Your task to perform on an android device: turn on showing notifications on the lock screen Image 0: 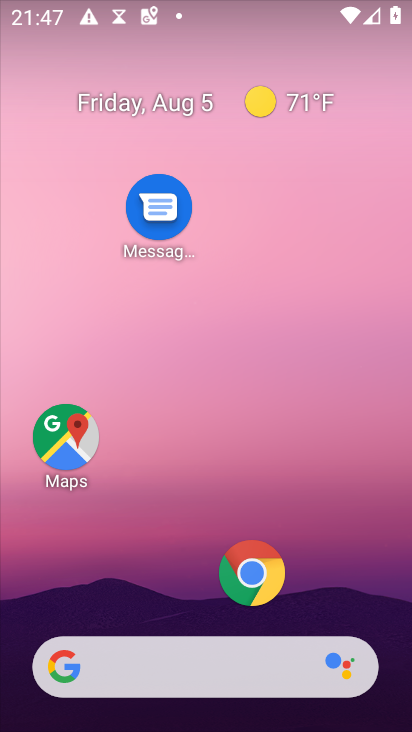
Step 0: press home button
Your task to perform on an android device: turn on showing notifications on the lock screen Image 1: 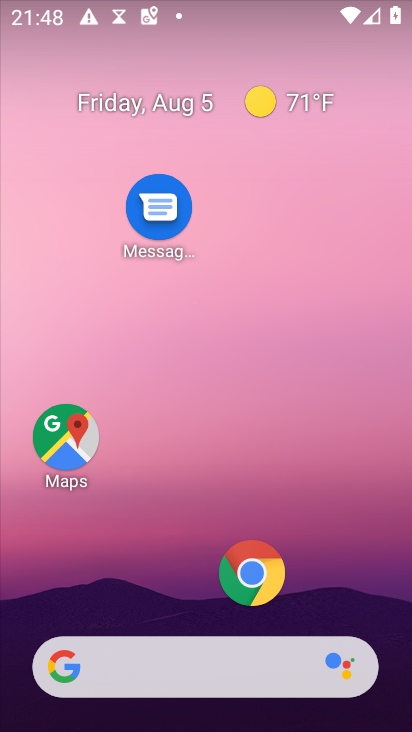
Step 1: drag from (185, 606) to (232, 36)
Your task to perform on an android device: turn on showing notifications on the lock screen Image 2: 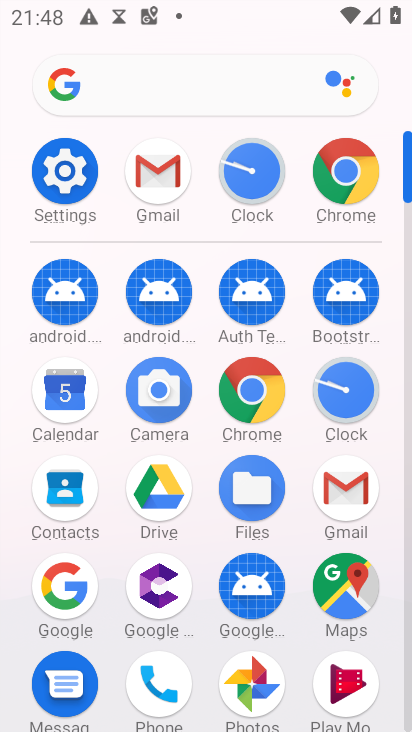
Step 2: click (58, 163)
Your task to perform on an android device: turn on showing notifications on the lock screen Image 3: 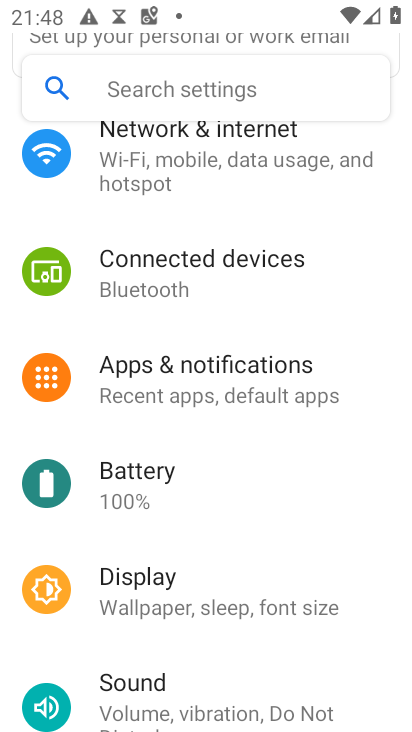
Step 3: click (326, 378)
Your task to perform on an android device: turn on showing notifications on the lock screen Image 4: 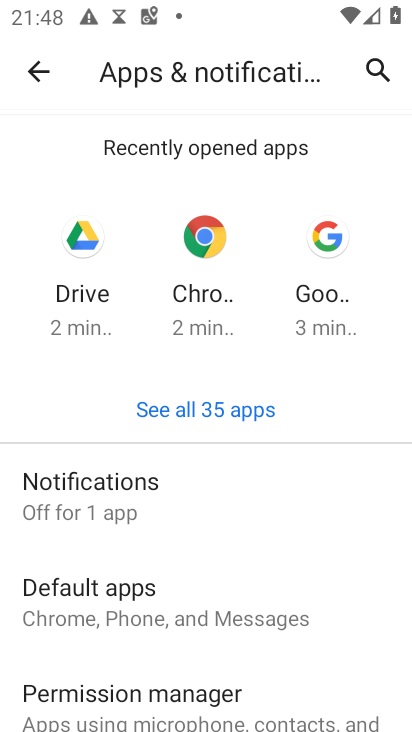
Step 4: click (186, 496)
Your task to perform on an android device: turn on showing notifications on the lock screen Image 5: 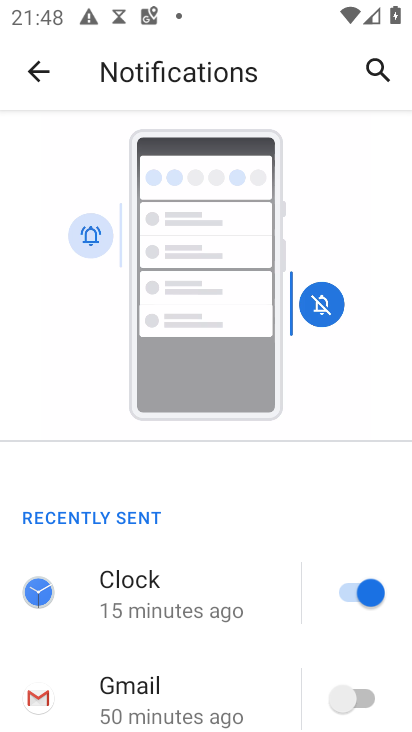
Step 5: drag from (232, 671) to (227, 233)
Your task to perform on an android device: turn on showing notifications on the lock screen Image 6: 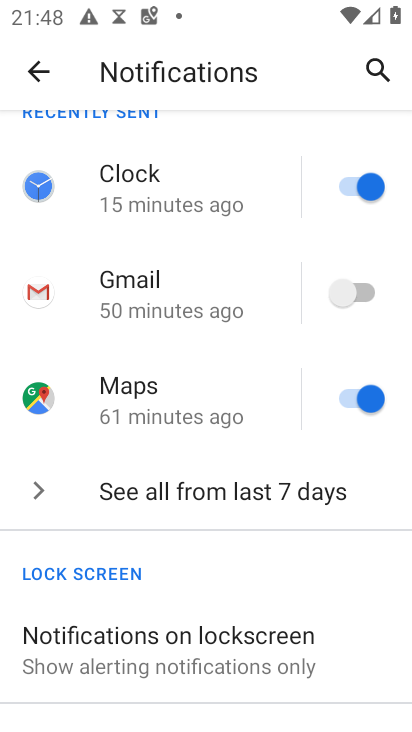
Step 6: drag from (237, 606) to (235, 281)
Your task to perform on an android device: turn on showing notifications on the lock screen Image 7: 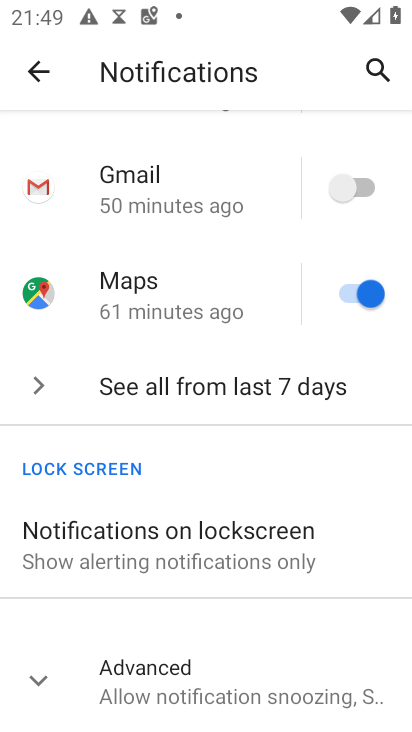
Step 7: click (131, 549)
Your task to perform on an android device: turn on showing notifications on the lock screen Image 8: 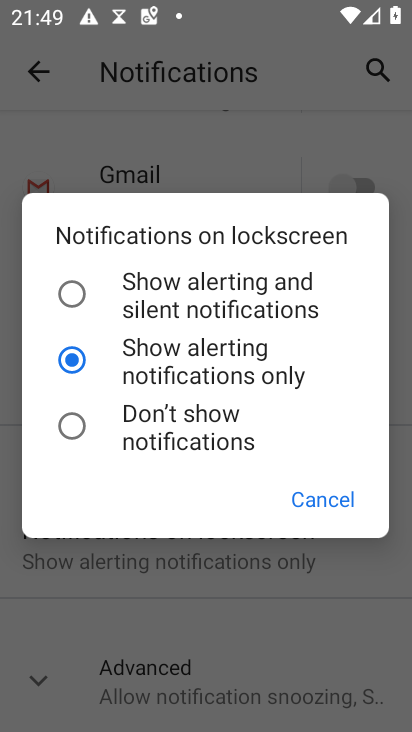
Step 8: click (70, 286)
Your task to perform on an android device: turn on showing notifications on the lock screen Image 9: 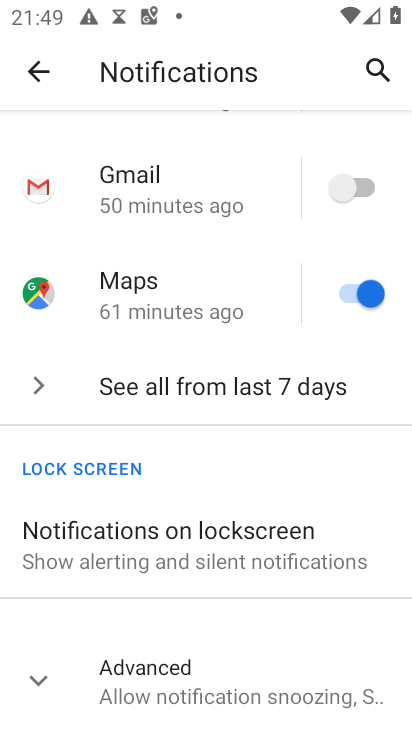
Step 9: task complete